Your task to perform on an android device: add a contact in the contacts app Image 0: 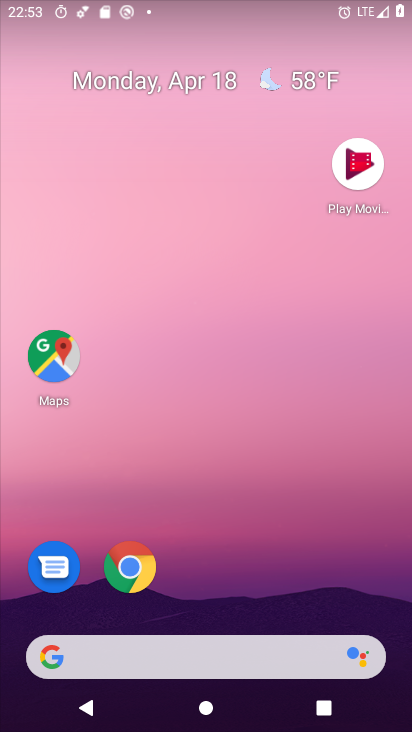
Step 0: click (318, 152)
Your task to perform on an android device: add a contact in the contacts app Image 1: 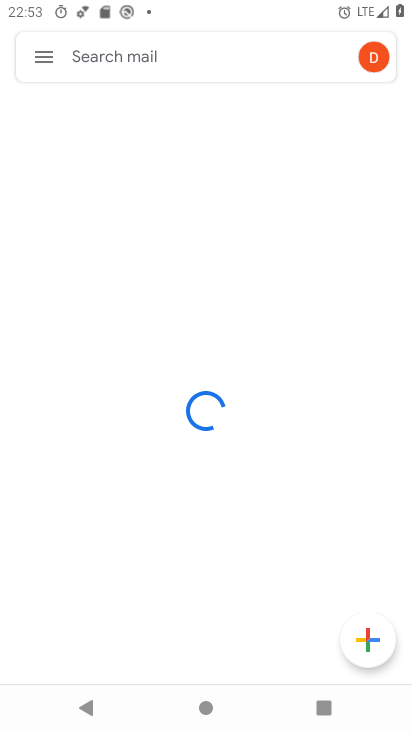
Step 1: drag from (175, 601) to (297, 116)
Your task to perform on an android device: add a contact in the contacts app Image 2: 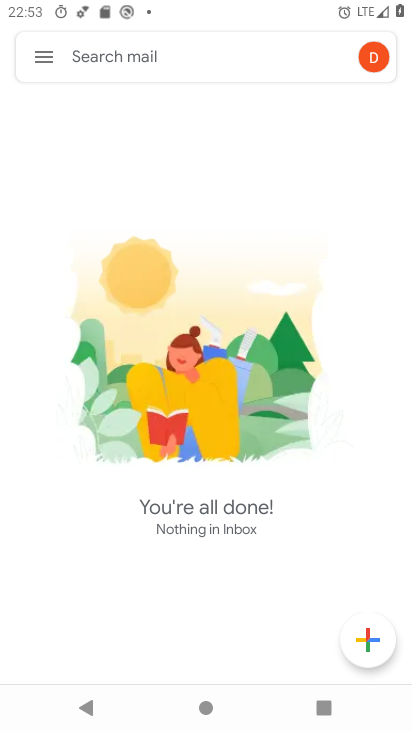
Step 2: press home button
Your task to perform on an android device: add a contact in the contacts app Image 3: 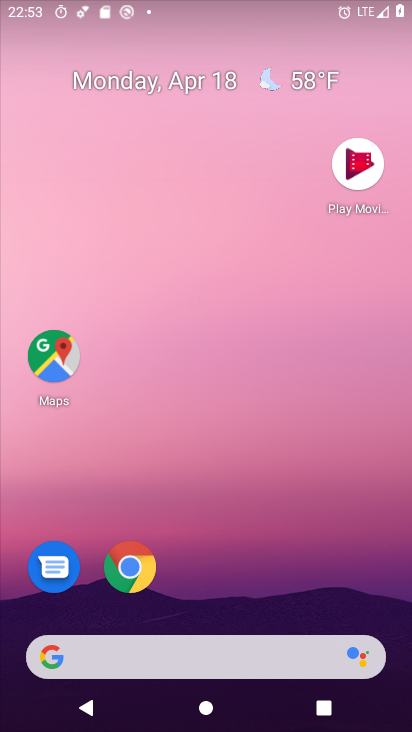
Step 3: drag from (165, 610) to (178, 227)
Your task to perform on an android device: add a contact in the contacts app Image 4: 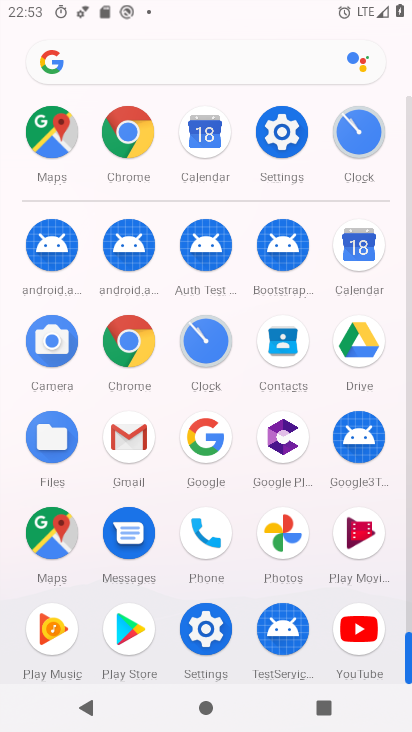
Step 4: click (281, 343)
Your task to perform on an android device: add a contact in the contacts app Image 5: 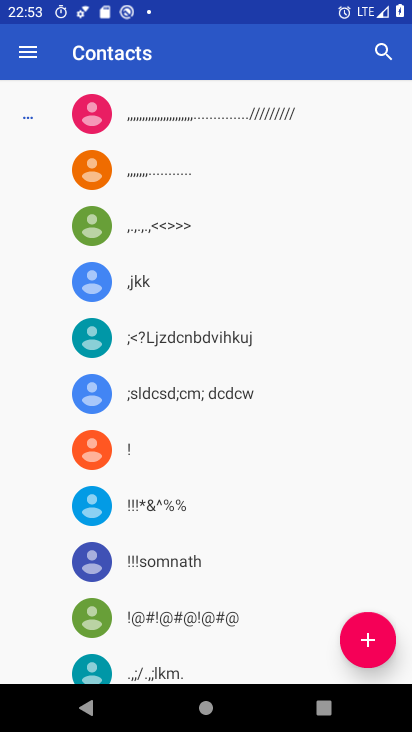
Step 5: drag from (234, 560) to (295, 191)
Your task to perform on an android device: add a contact in the contacts app Image 6: 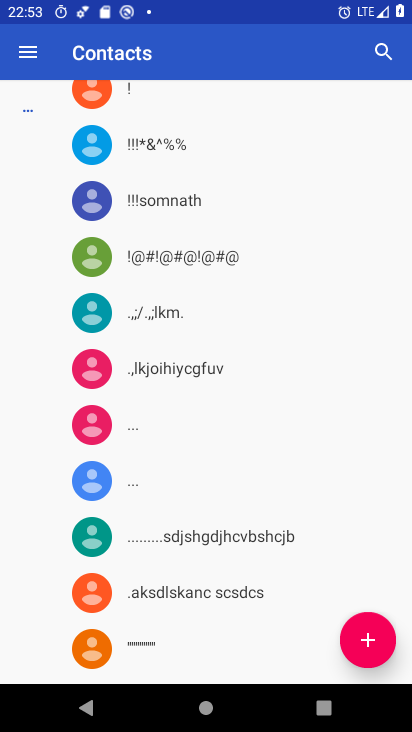
Step 6: drag from (233, 604) to (239, 78)
Your task to perform on an android device: add a contact in the contacts app Image 7: 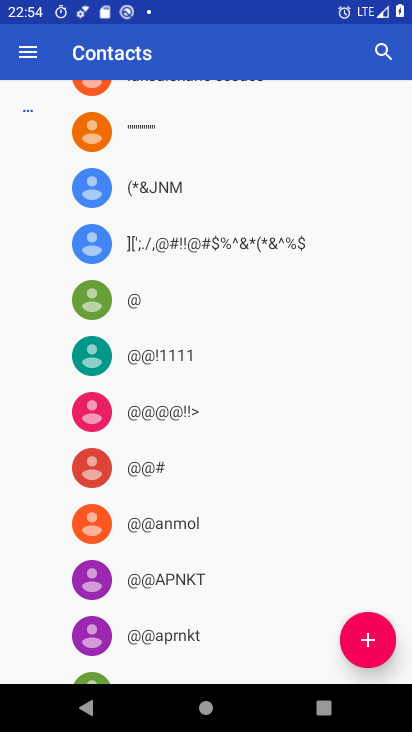
Step 7: click (366, 630)
Your task to perform on an android device: add a contact in the contacts app Image 8: 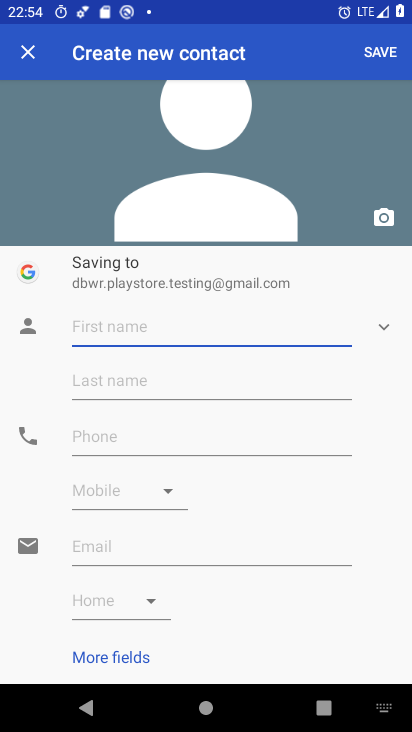
Step 8: type "mjkl"
Your task to perform on an android device: add a contact in the contacts app Image 9: 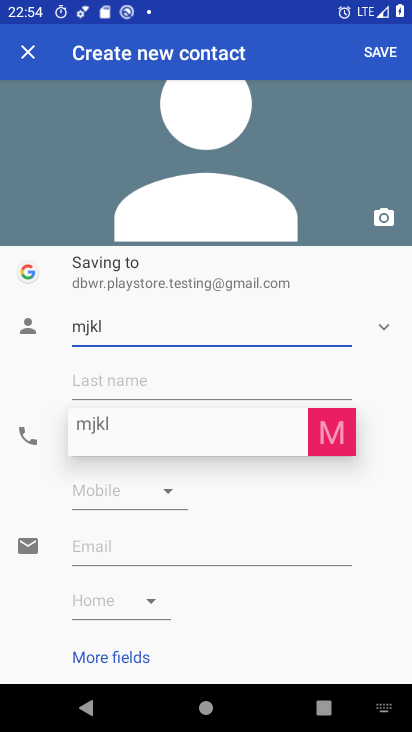
Step 9: type "uj"
Your task to perform on an android device: add a contact in the contacts app Image 10: 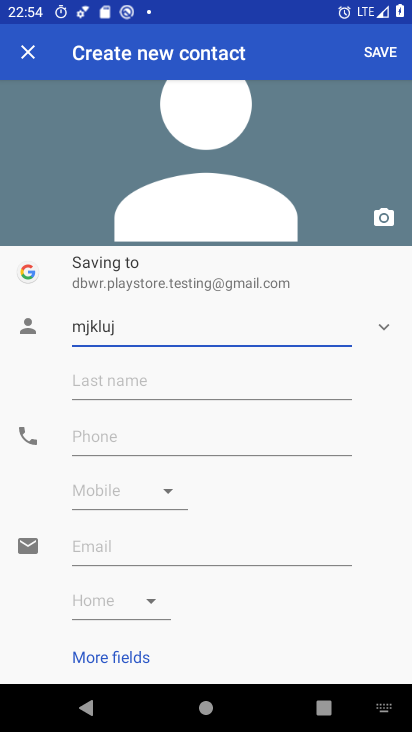
Step 10: click (391, 60)
Your task to perform on an android device: add a contact in the contacts app Image 11: 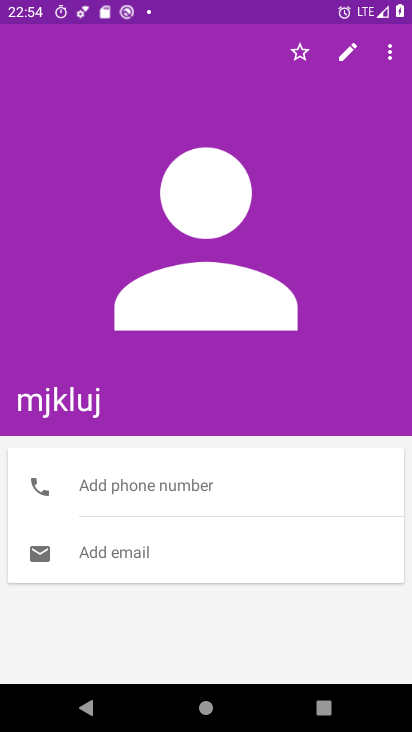
Step 11: task complete